Your task to perform on an android device: Find coffee shops on Maps Image 0: 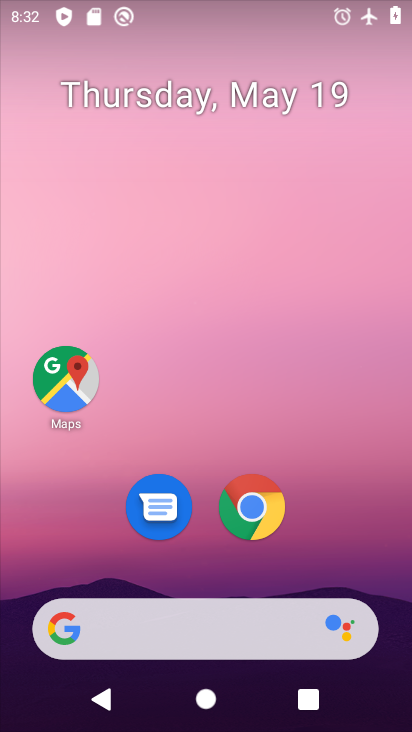
Step 0: drag from (233, 712) to (241, 55)
Your task to perform on an android device: Find coffee shops on Maps Image 1: 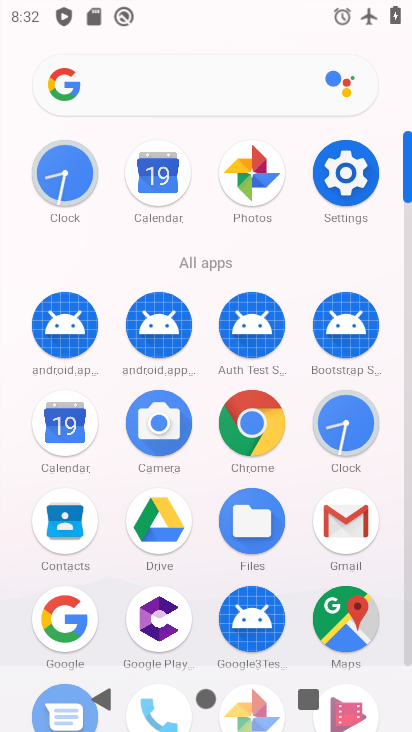
Step 1: click (355, 625)
Your task to perform on an android device: Find coffee shops on Maps Image 2: 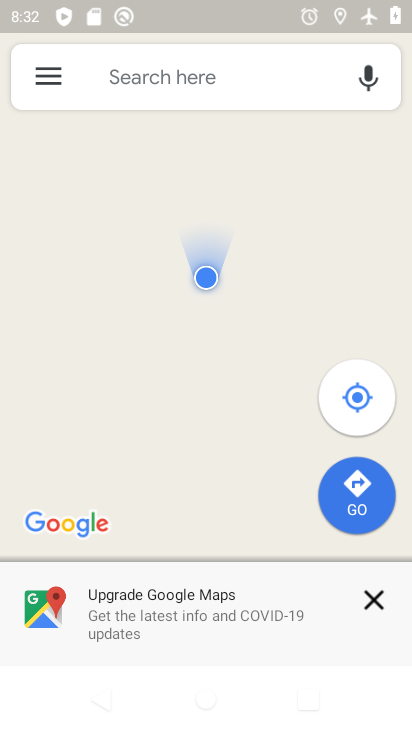
Step 2: click (185, 75)
Your task to perform on an android device: Find coffee shops on Maps Image 3: 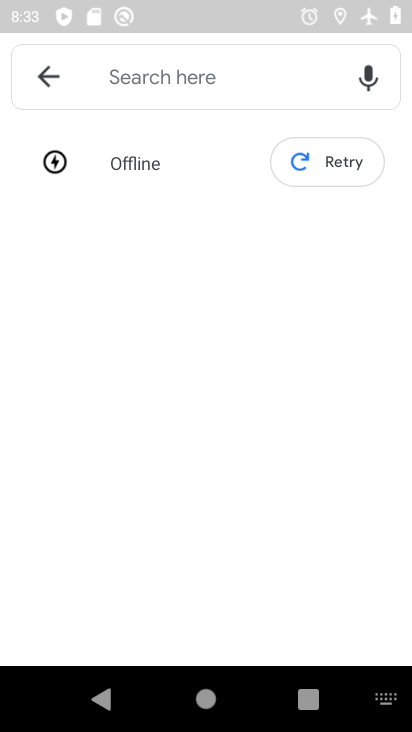
Step 3: type "coffe shops "
Your task to perform on an android device: Find coffee shops on Maps Image 4: 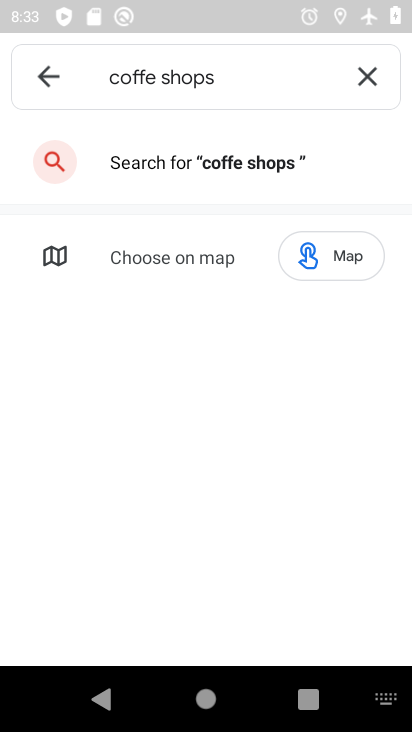
Step 4: click (225, 157)
Your task to perform on an android device: Find coffee shops on Maps Image 5: 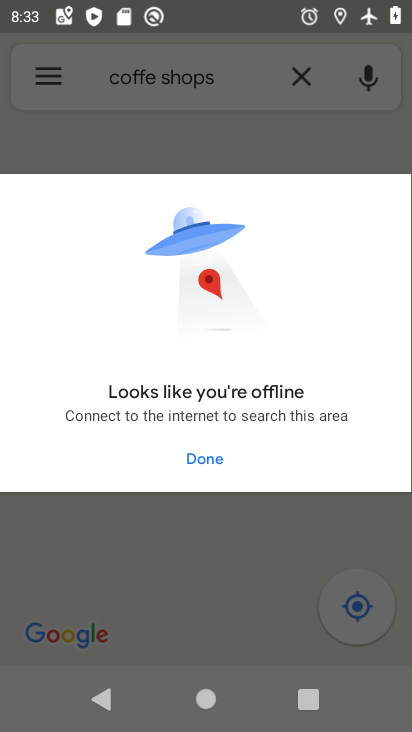
Step 5: task complete